Your task to perform on an android device: delete browsing data in the chrome app Image 0: 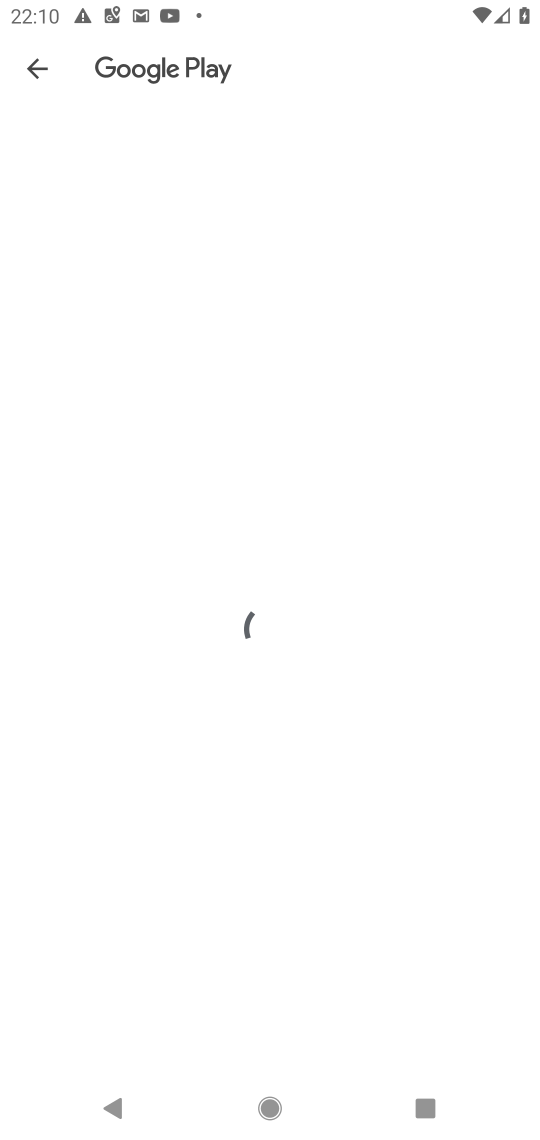
Step 0: press home button
Your task to perform on an android device: delete browsing data in the chrome app Image 1: 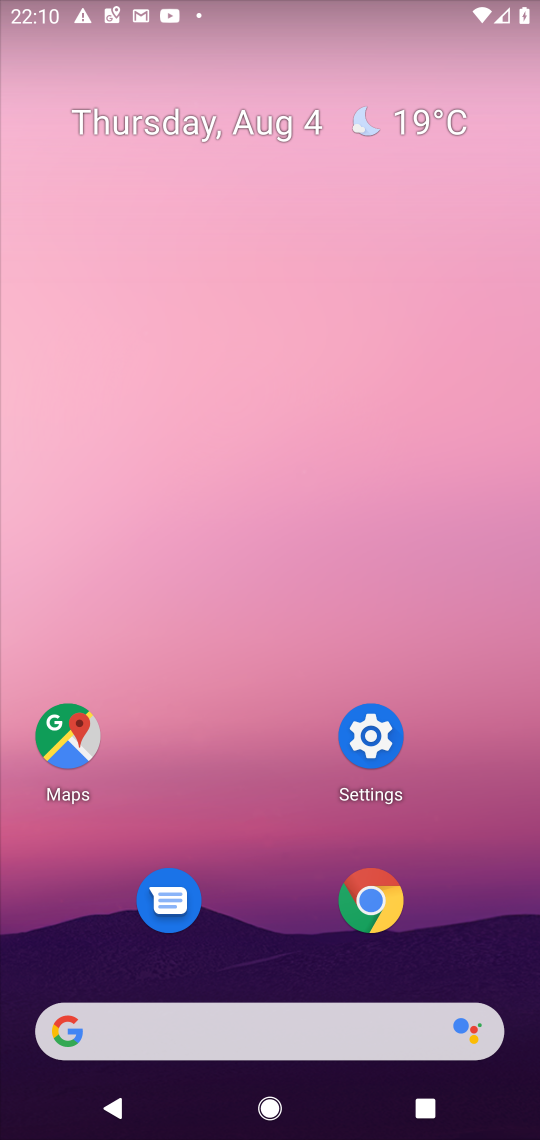
Step 1: click (375, 909)
Your task to perform on an android device: delete browsing data in the chrome app Image 2: 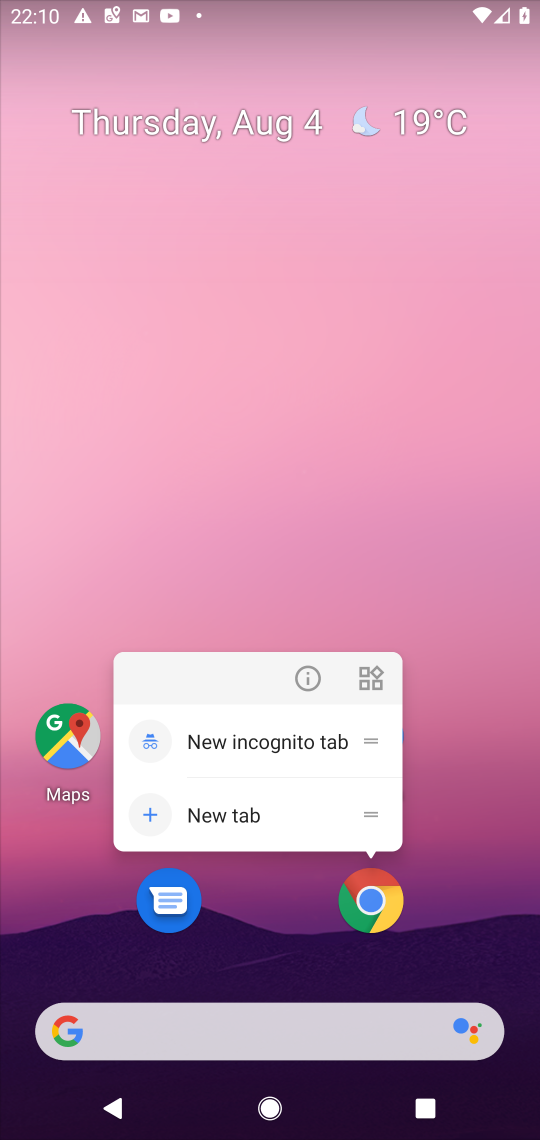
Step 2: click (372, 902)
Your task to perform on an android device: delete browsing data in the chrome app Image 3: 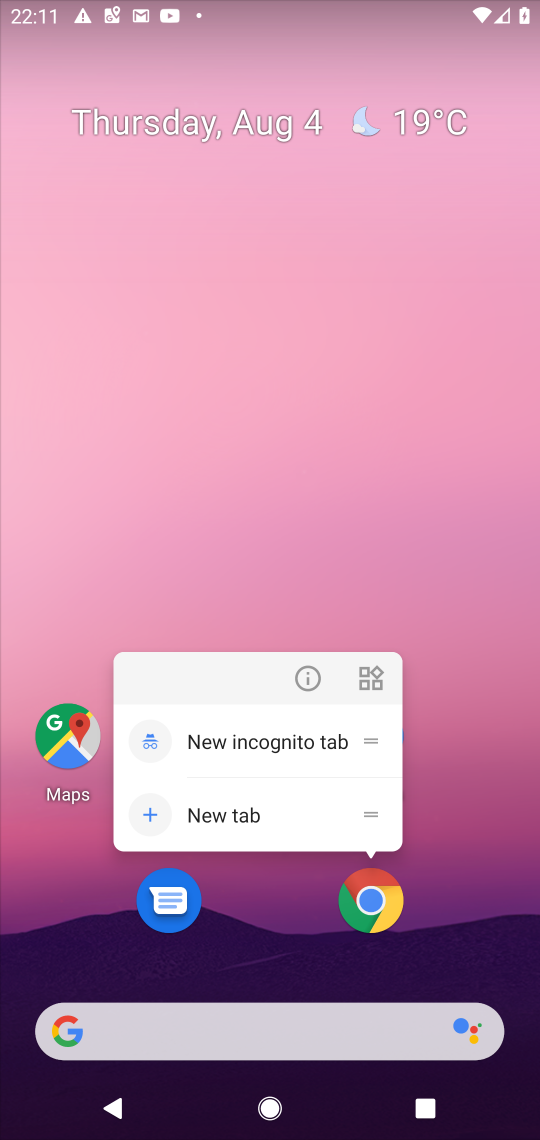
Step 3: click (374, 898)
Your task to perform on an android device: delete browsing data in the chrome app Image 4: 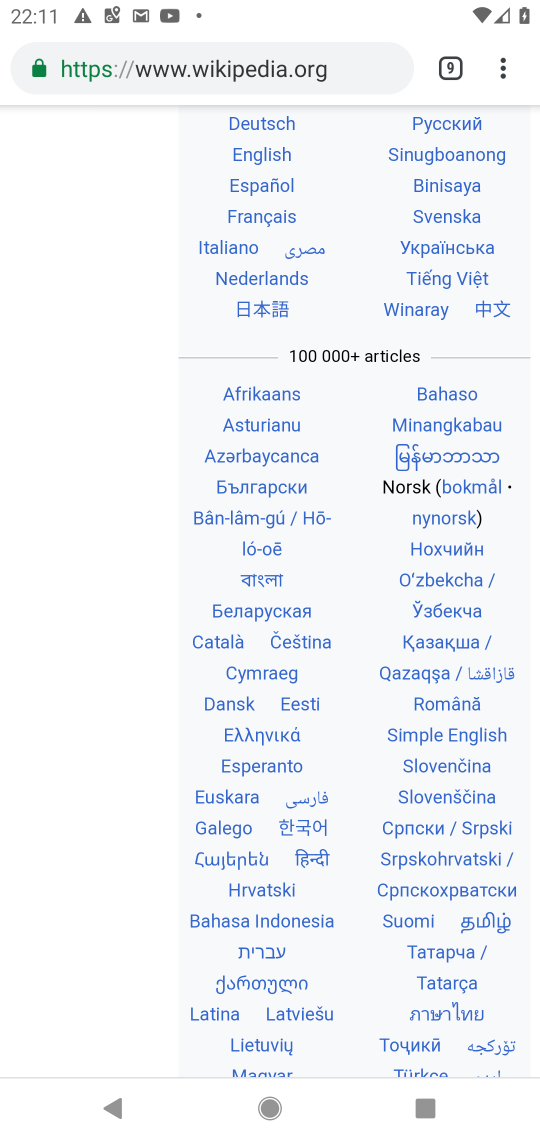
Step 4: drag from (500, 72) to (326, 896)
Your task to perform on an android device: delete browsing data in the chrome app Image 5: 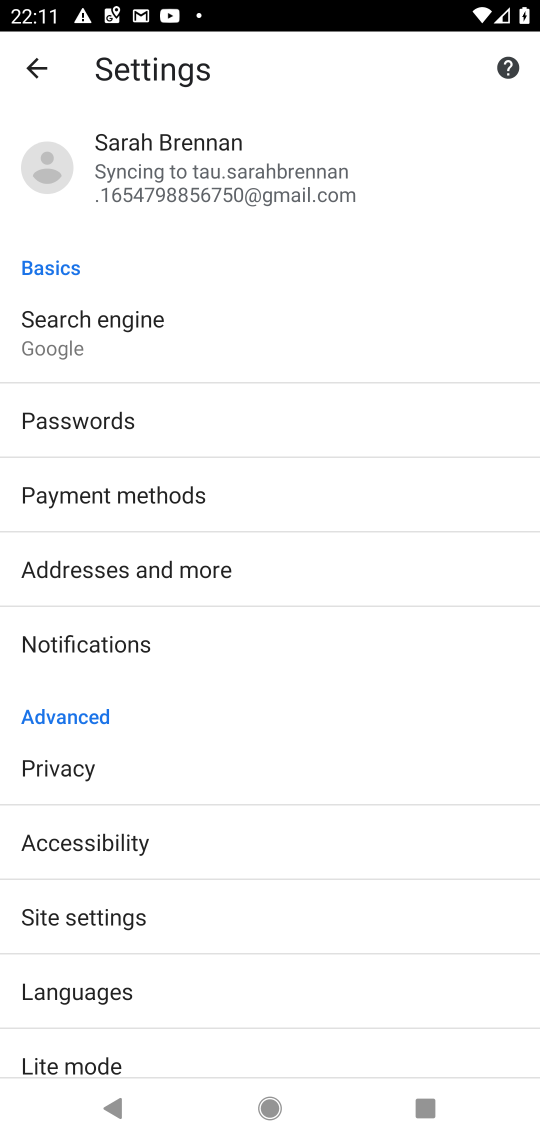
Step 5: click (77, 775)
Your task to perform on an android device: delete browsing data in the chrome app Image 6: 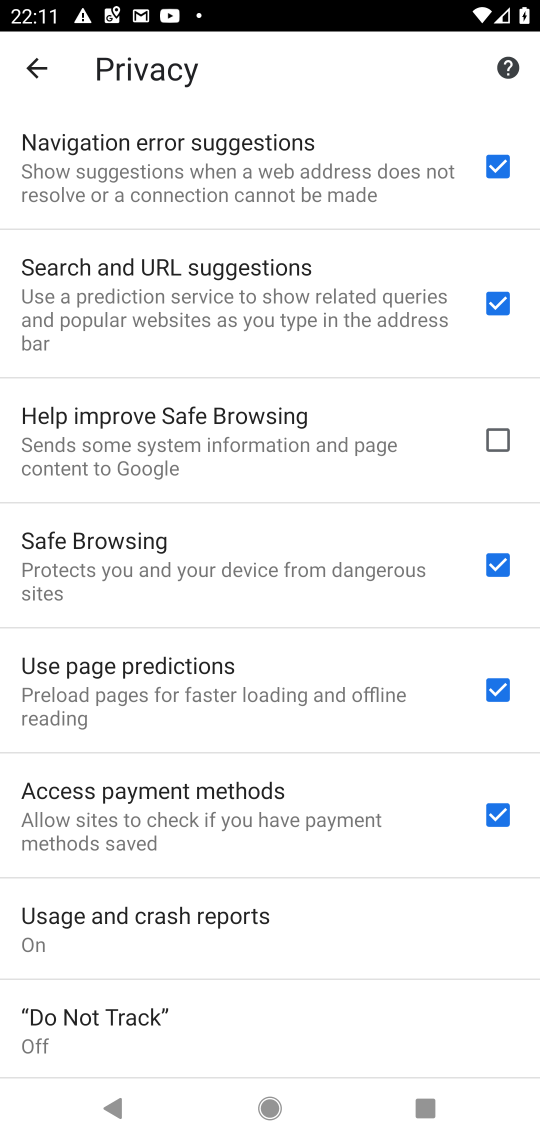
Step 6: drag from (268, 1027) to (393, 161)
Your task to perform on an android device: delete browsing data in the chrome app Image 7: 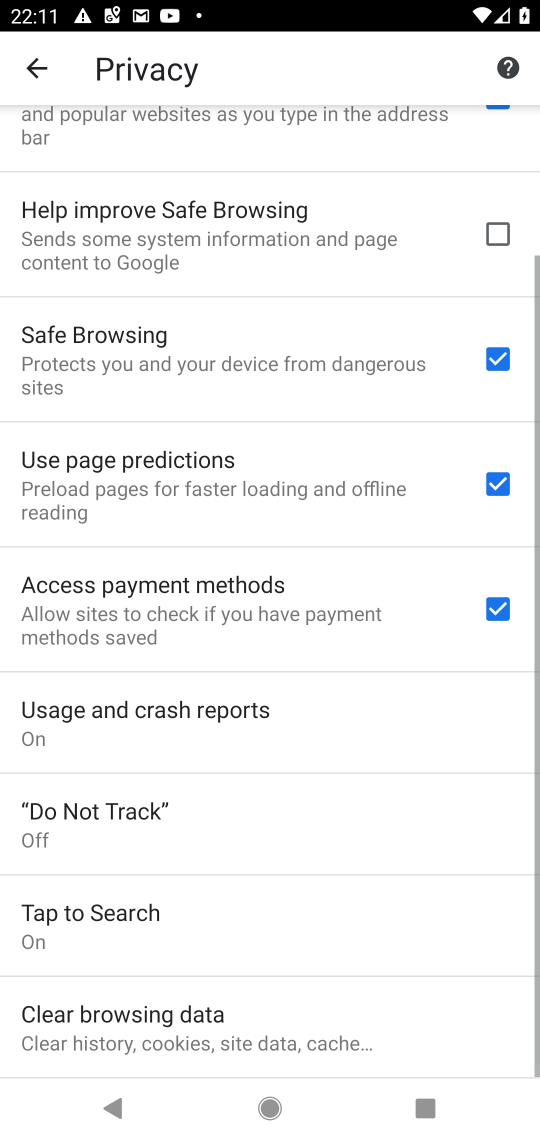
Step 7: click (191, 1029)
Your task to perform on an android device: delete browsing data in the chrome app Image 8: 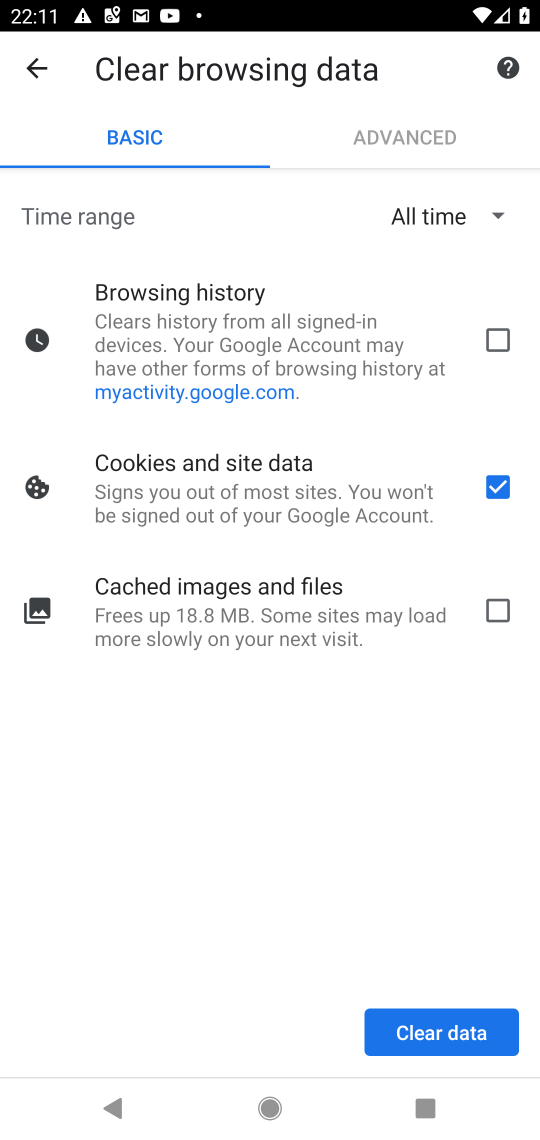
Step 8: click (497, 337)
Your task to perform on an android device: delete browsing data in the chrome app Image 9: 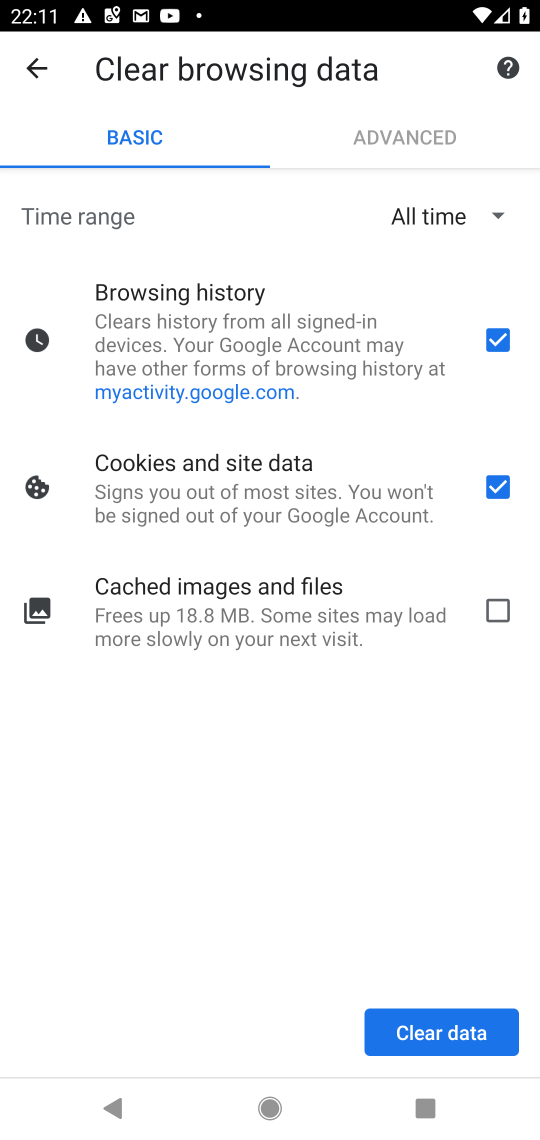
Step 9: click (505, 607)
Your task to perform on an android device: delete browsing data in the chrome app Image 10: 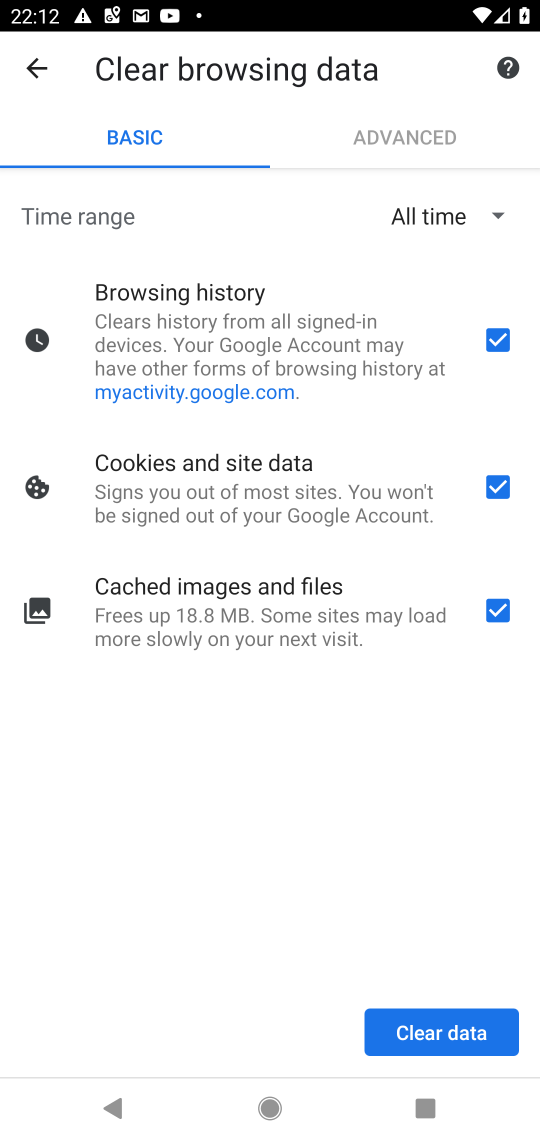
Step 10: click (428, 1025)
Your task to perform on an android device: delete browsing data in the chrome app Image 11: 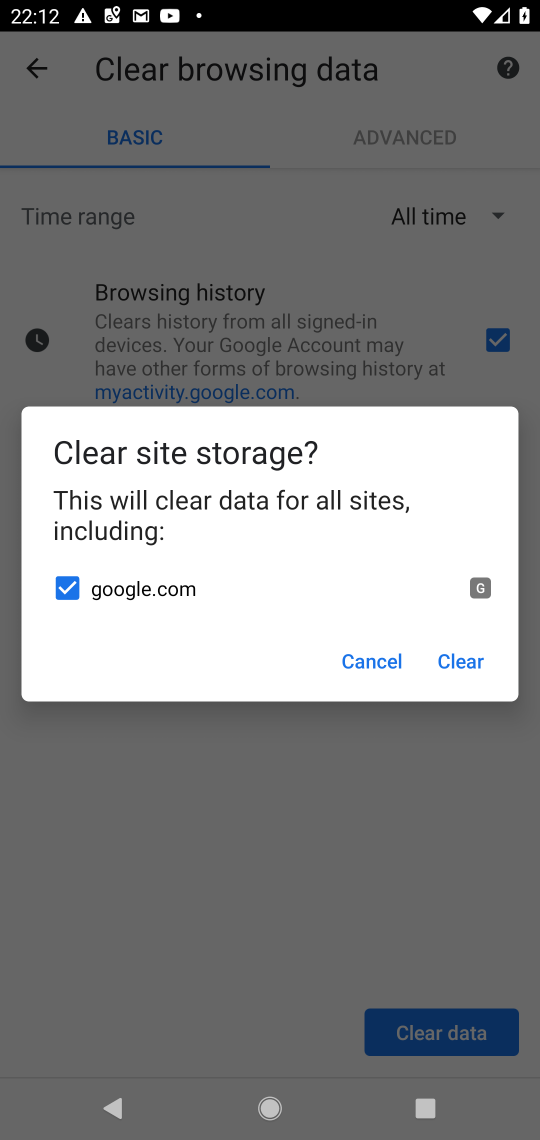
Step 11: click (479, 656)
Your task to perform on an android device: delete browsing data in the chrome app Image 12: 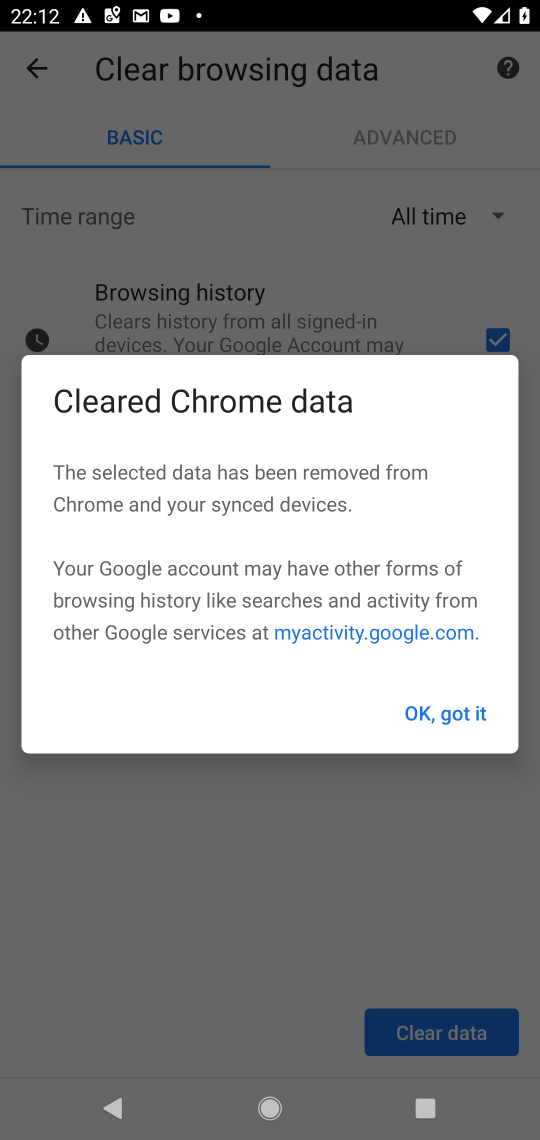
Step 12: click (468, 708)
Your task to perform on an android device: delete browsing data in the chrome app Image 13: 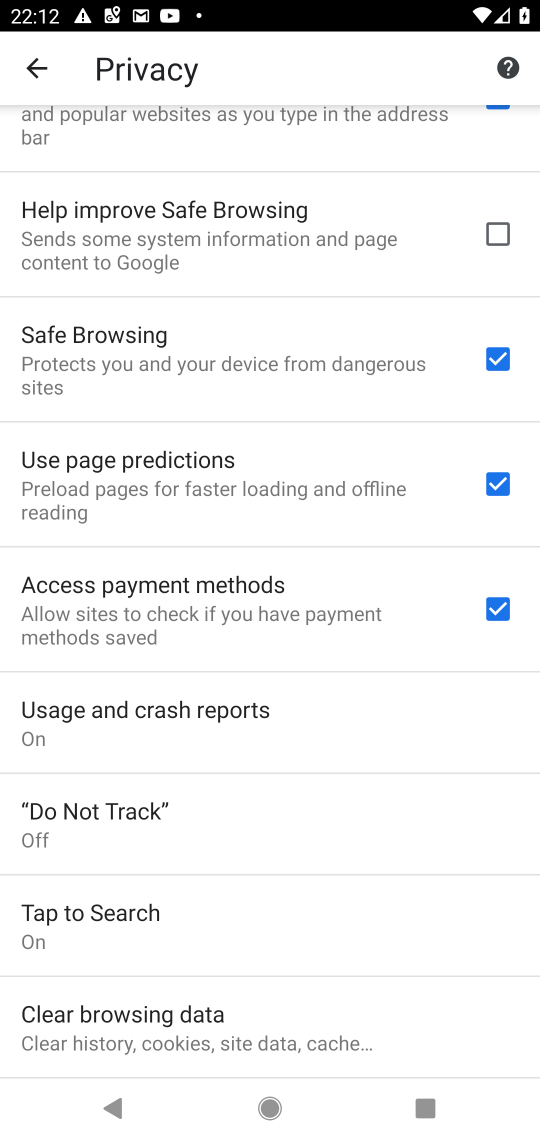
Step 13: task complete